Your task to perform on an android device: toggle translation in the chrome app Image 0: 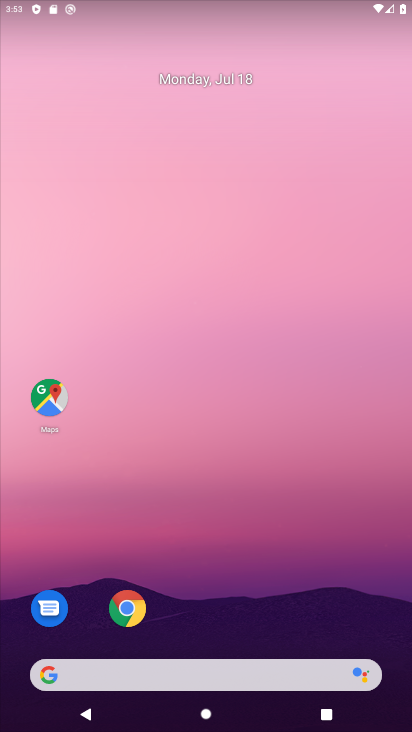
Step 0: click (133, 602)
Your task to perform on an android device: toggle translation in the chrome app Image 1: 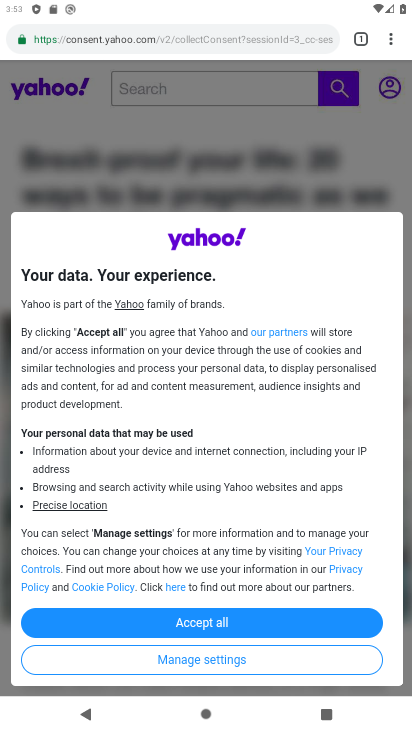
Step 1: click (393, 37)
Your task to perform on an android device: toggle translation in the chrome app Image 2: 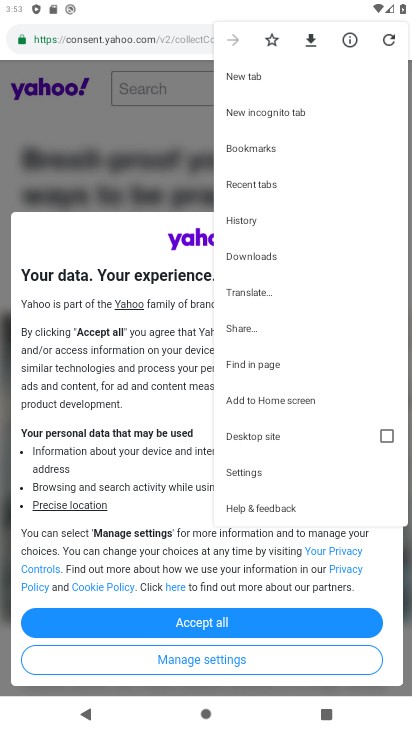
Step 2: click (268, 476)
Your task to perform on an android device: toggle translation in the chrome app Image 3: 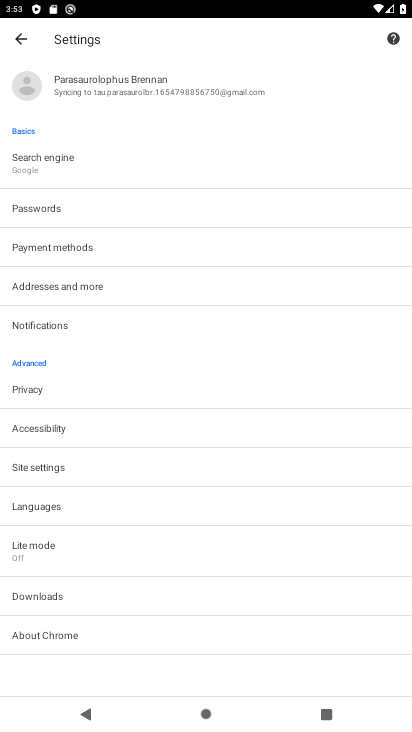
Step 3: click (75, 510)
Your task to perform on an android device: toggle translation in the chrome app Image 4: 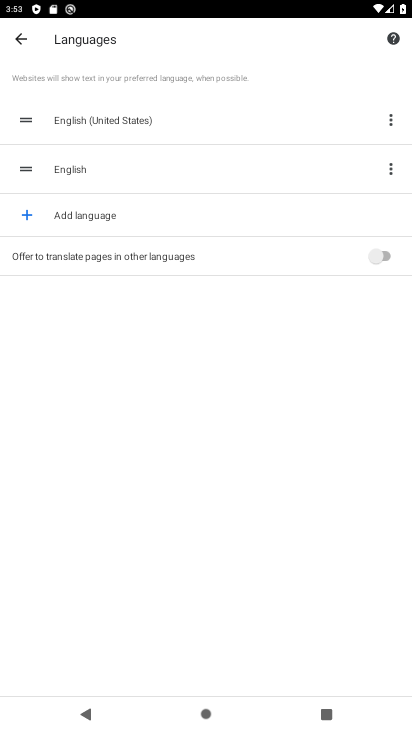
Step 4: click (376, 260)
Your task to perform on an android device: toggle translation in the chrome app Image 5: 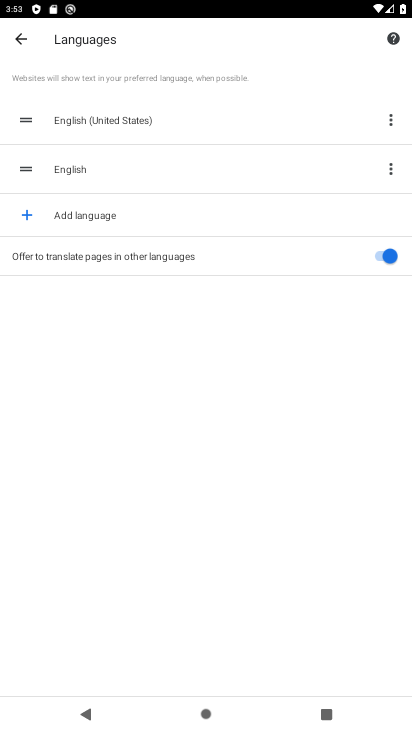
Step 5: task complete